Your task to perform on an android device: Open privacy settings Image 0: 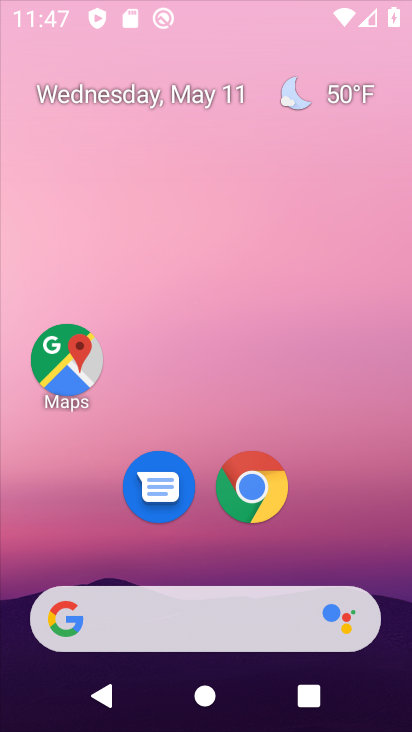
Step 0: click (373, 42)
Your task to perform on an android device: Open privacy settings Image 1: 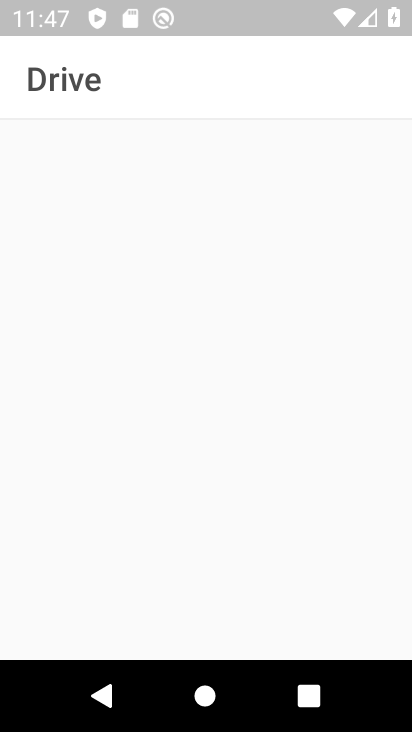
Step 1: press home button
Your task to perform on an android device: Open privacy settings Image 2: 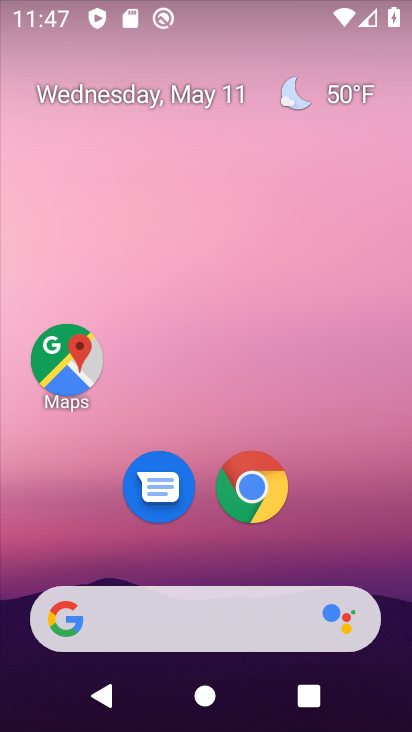
Step 2: drag from (203, 587) to (284, 95)
Your task to perform on an android device: Open privacy settings Image 3: 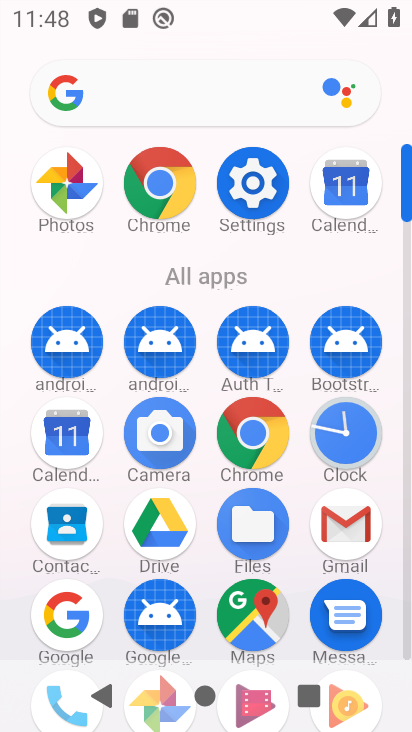
Step 3: click (265, 176)
Your task to perform on an android device: Open privacy settings Image 4: 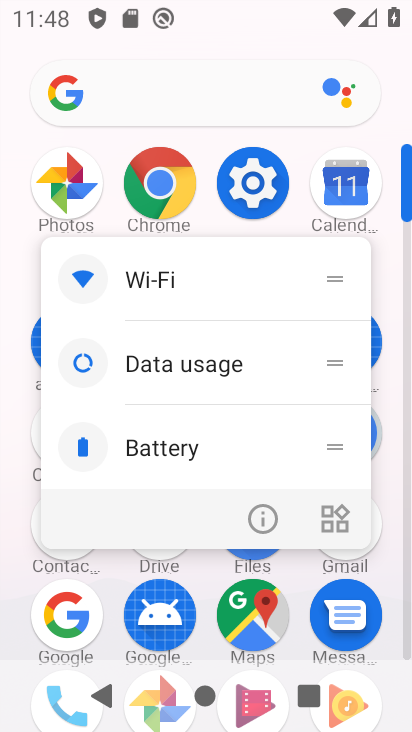
Step 4: click (258, 171)
Your task to perform on an android device: Open privacy settings Image 5: 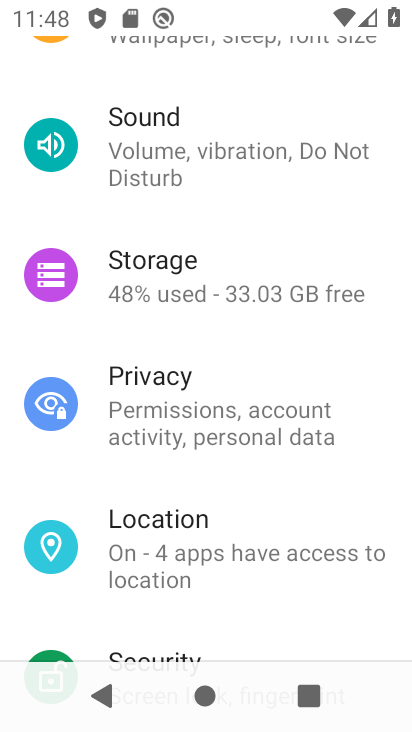
Step 5: click (166, 394)
Your task to perform on an android device: Open privacy settings Image 6: 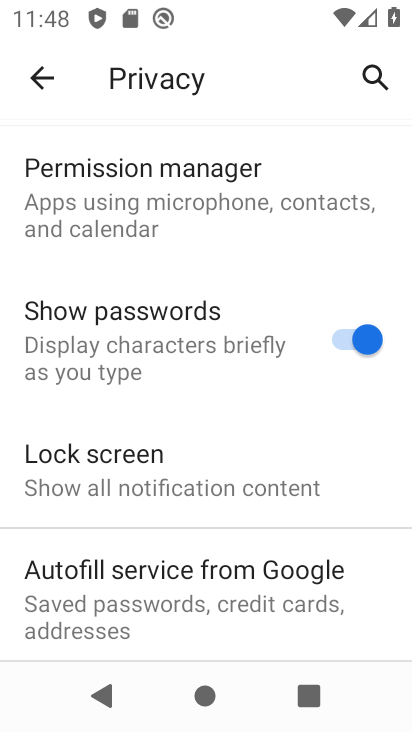
Step 6: task complete